Your task to perform on an android device: Search for Mexican restaurants on Maps Image 0: 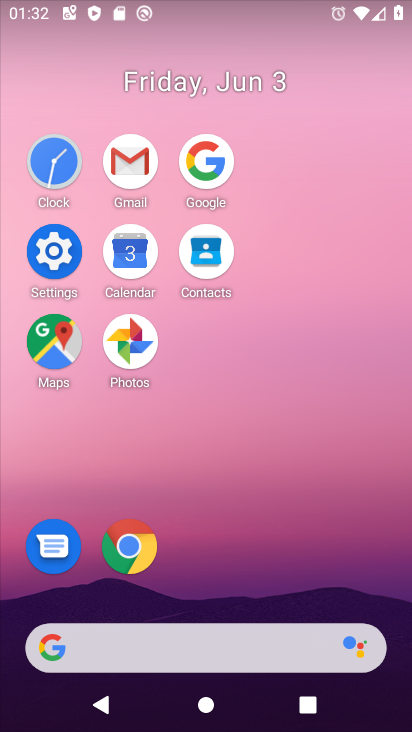
Step 0: click (64, 326)
Your task to perform on an android device: Search for Mexican restaurants on Maps Image 1: 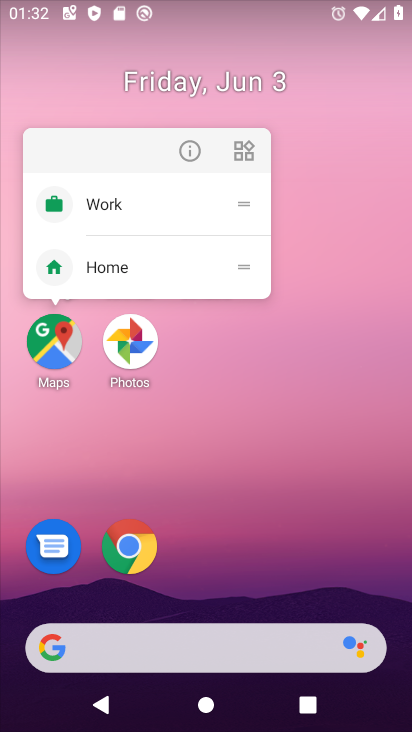
Step 1: click (68, 345)
Your task to perform on an android device: Search for Mexican restaurants on Maps Image 2: 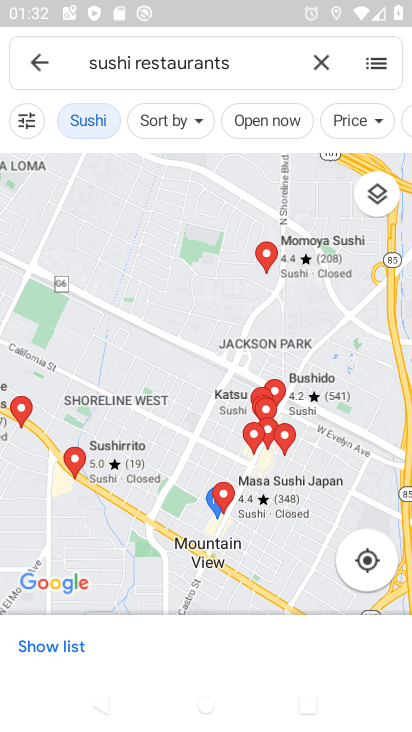
Step 2: click (319, 61)
Your task to perform on an android device: Search for Mexican restaurants on Maps Image 3: 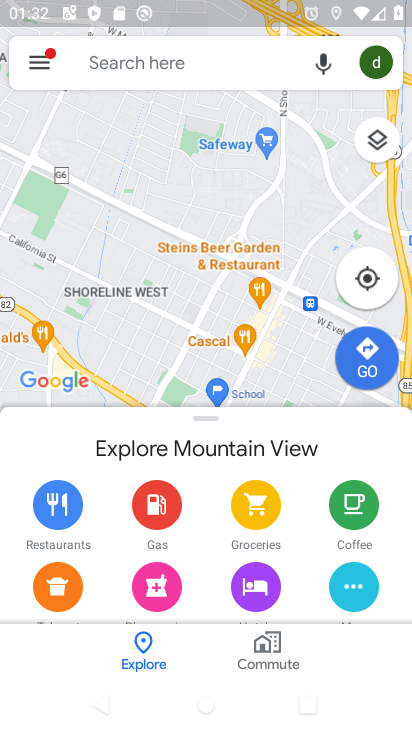
Step 3: click (223, 54)
Your task to perform on an android device: Search for Mexican restaurants on Maps Image 4: 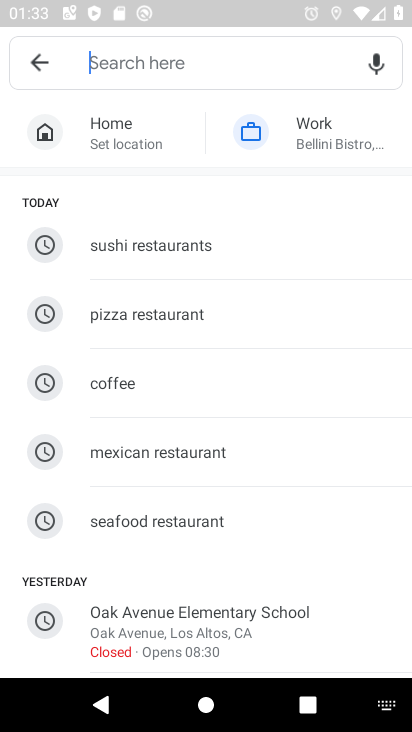
Step 4: click (218, 460)
Your task to perform on an android device: Search for Mexican restaurants on Maps Image 5: 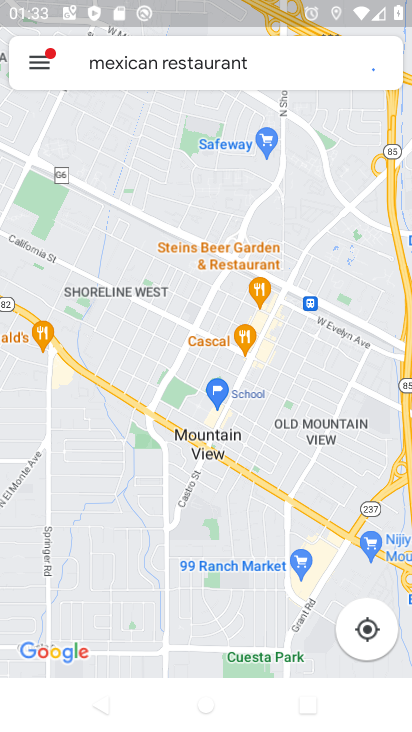
Step 5: task complete